Your task to perform on an android device: change the clock display to analog Image 0: 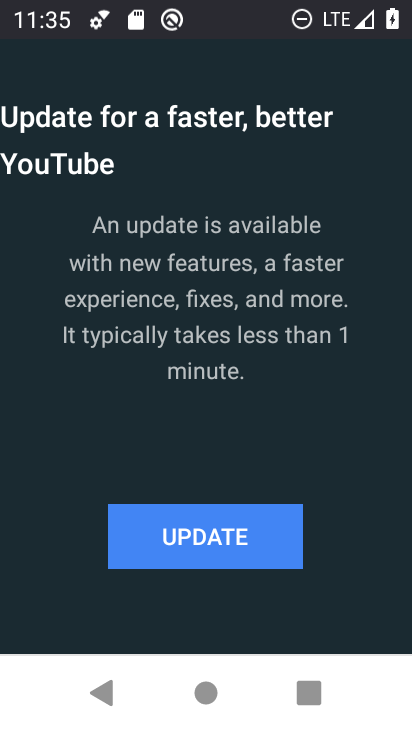
Step 0: press home button
Your task to perform on an android device: change the clock display to analog Image 1: 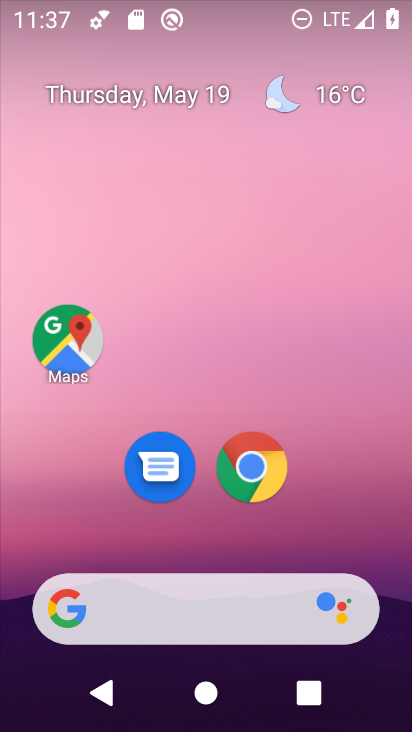
Step 1: drag from (274, 517) to (352, 127)
Your task to perform on an android device: change the clock display to analog Image 2: 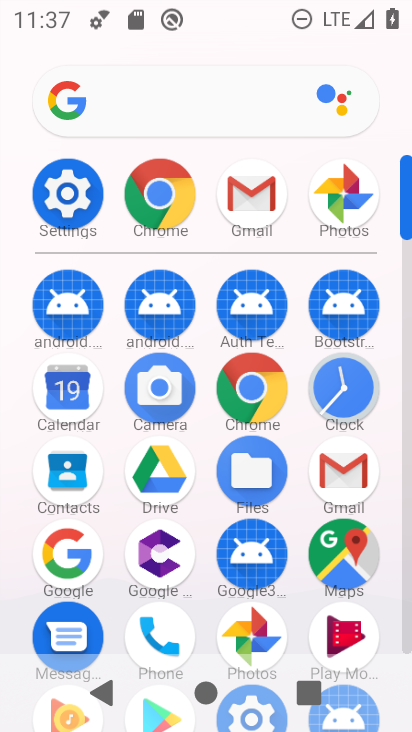
Step 2: click (347, 390)
Your task to perform on an android device: change the clock display to analog Image 3: 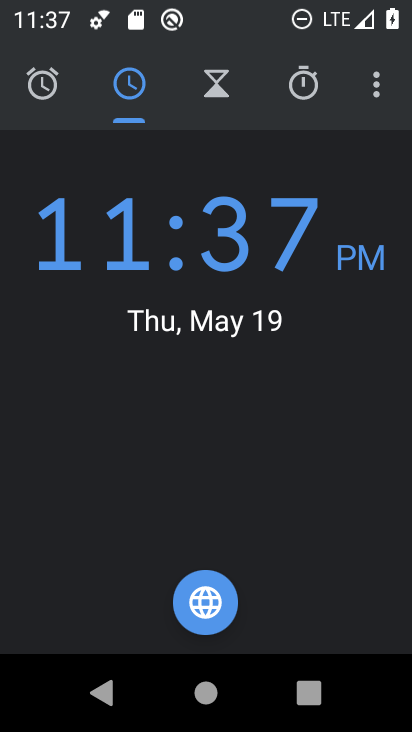
Step 3: click (375, 89)
Your task to perform on an android device: change the clock display to analog Image 4: 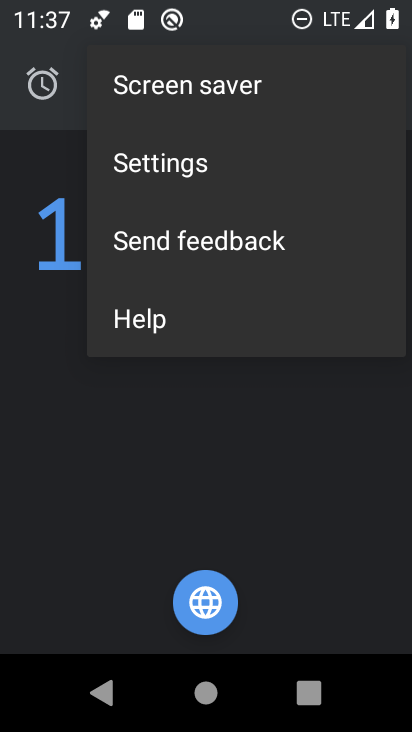
Step 4: click (203, 181)
Your task to perform on an android device: change the clock display to analog Image 5: 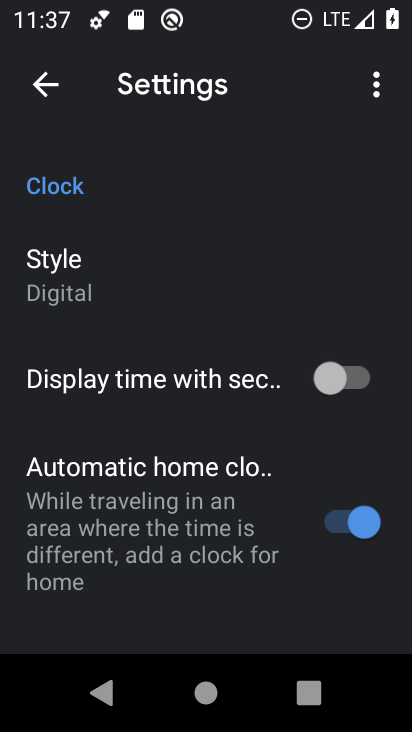
Step 5: click (110, 295)
Your task to perform on an android device: change the clock display to analog Image 6: 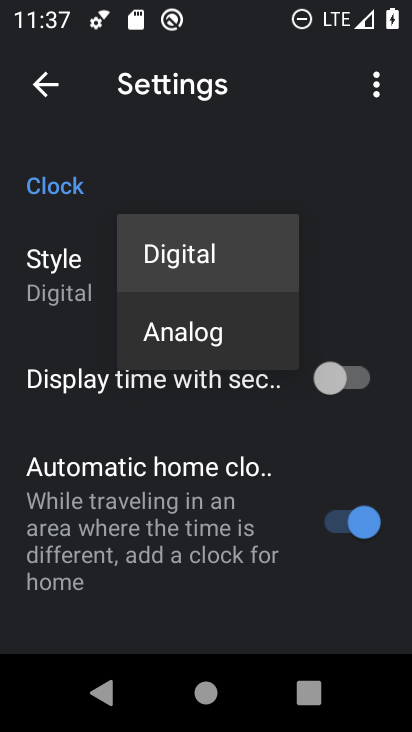
Step 6: click (166, 339)
Your task to perform on an android device: change the clock display to analog Image 7: 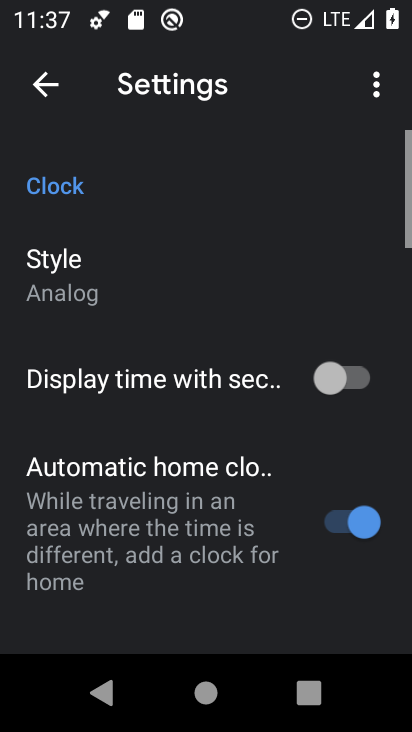
Step 7: task complete